Your task to perform on an android device: open app "Clock" Image 0: 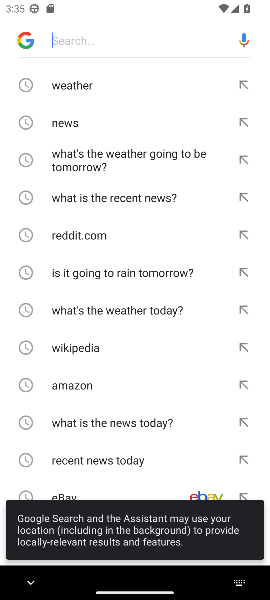
Step 0: press home button
Your task to perform on an android device: open app "Clock" Image 1: 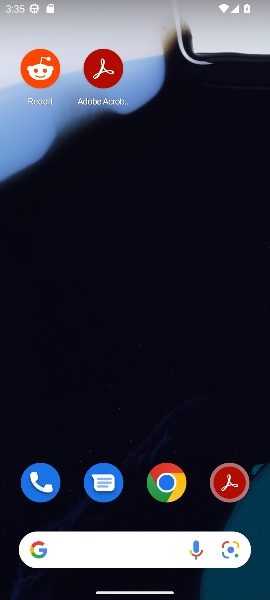
Step 1: press home button
Your task to perform on an android device: open app "Clock" Image 2: 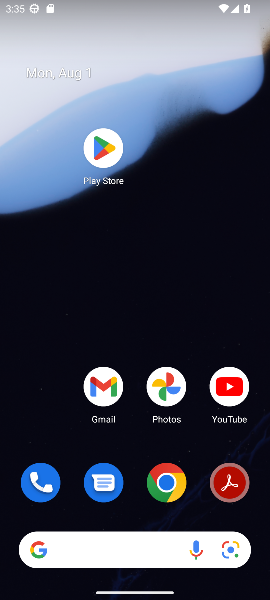
Step 2: click (105, 149)
Your task to perform on an android device: open app "Clock" Image 3: 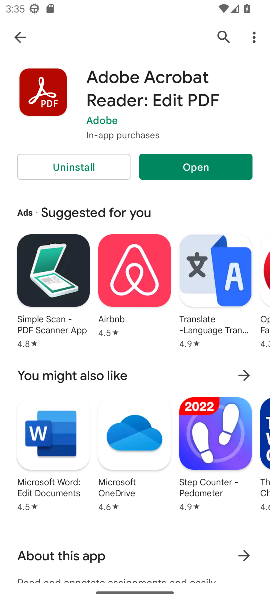
Step 3: click (220, 30)
Your task to perform on an android device: open app "Clock" Image 4: 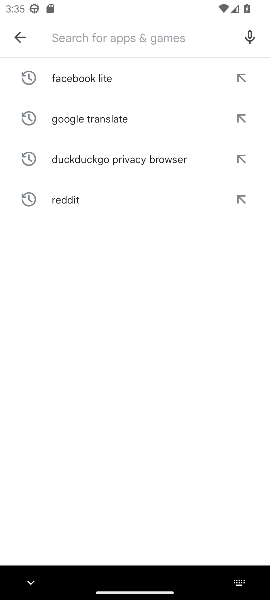
Step 4: type "Clock"
Your task to perform on an android device: open app "Clock" Image 5: 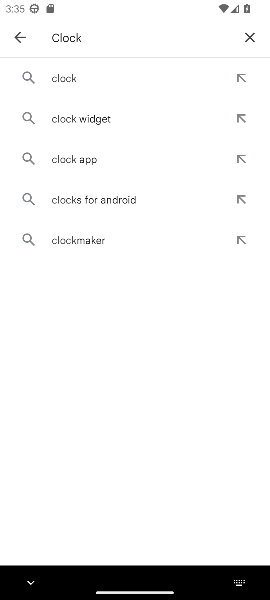
Step 5: click (65, 78)
Your task to perform on an android device: open app "Clock" Image 6: 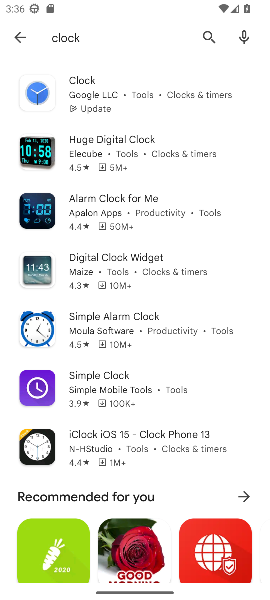
Step 6: click (91, 88)
Your task to perform on an android device: open app "Clock" Image 7: 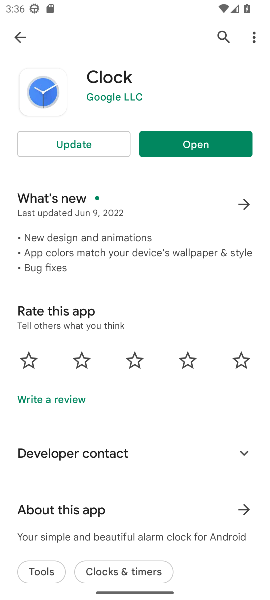
Step 7: click (204, 150)
Your task to perform on an android device: open app "Clock" Image 8: 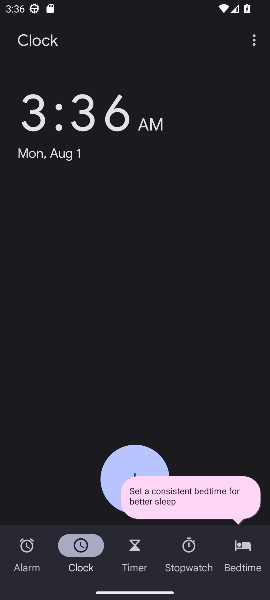
Step 8: task complete